Your task to perform on an android device: toggle pop-ups in chrome Image 0: 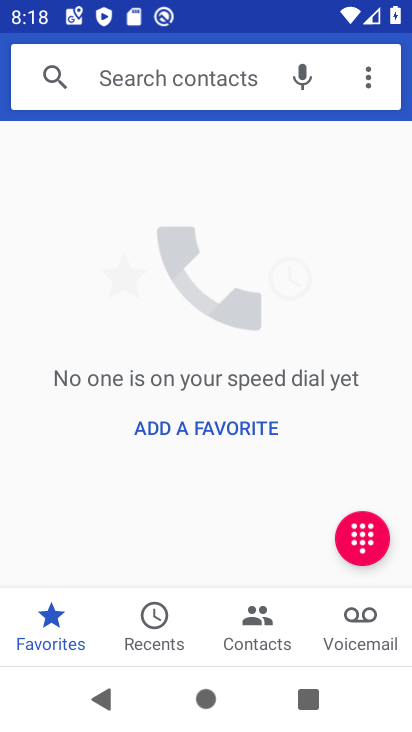
Step 0: press home button
Your task to perform on an android device: toggle pop-ups in chrome Image 1: 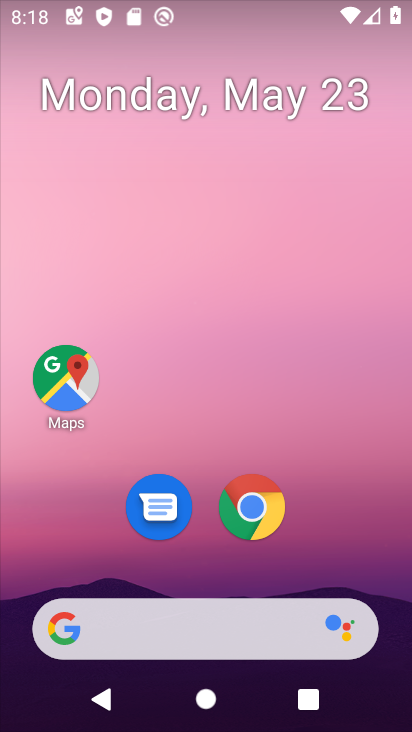
Step 1: drag from (353, 486) to (343, 95)
Your task to perform on an android device: toggle pop-ups in chrome Image 2: 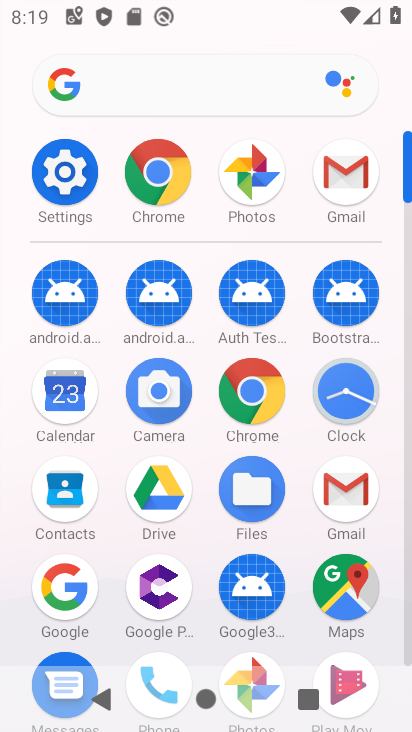
Step 2: click (267, 402)
Your task to perform on an android device: toggle pop-ups in chrome Image 3: 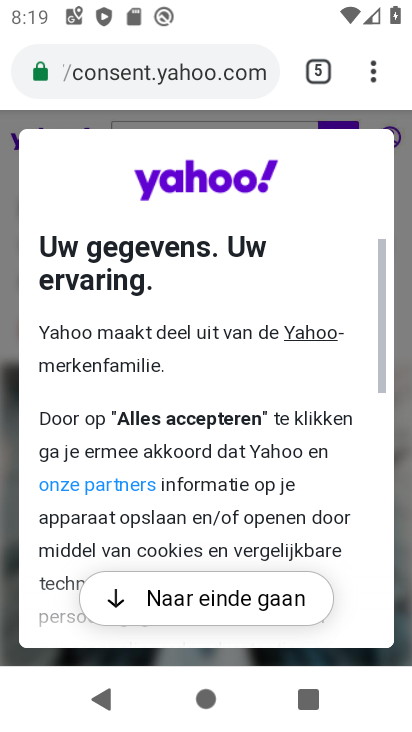
Step 3: drag from (371, 79) to (247, 507)
Your task to perform on an android device: toggle pop-ups in chrome Image 4: 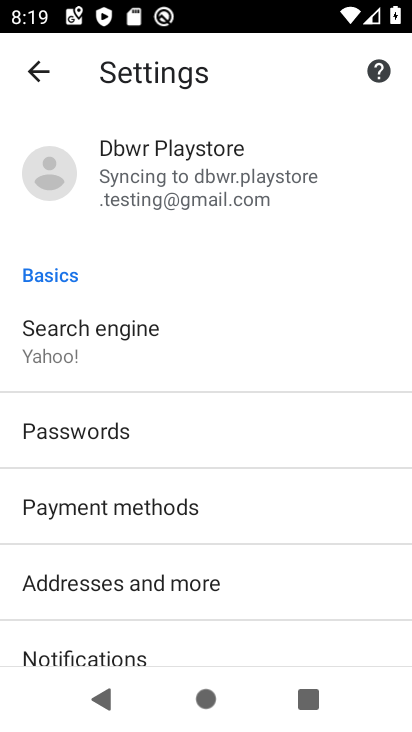
Step 4: drag from (244, 591) to (255, 299)
Your task to perform on an android device: toggle pop-ups in chrome Image 5: 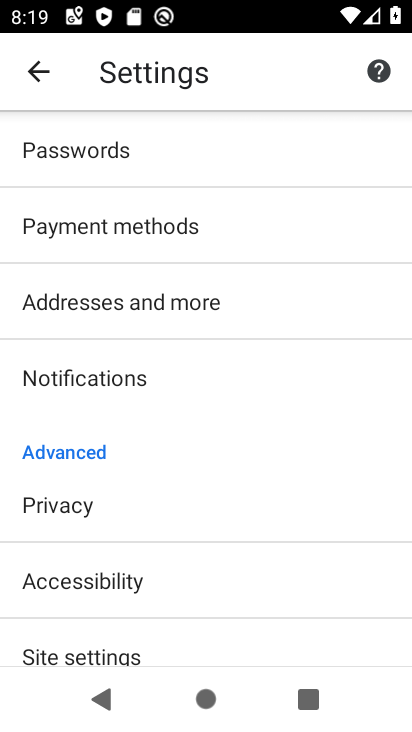
Step 5: drag from (208, 586) to (228, 363)
Your task to perform on an android device: toggle pop-ups in chrome Image 6: 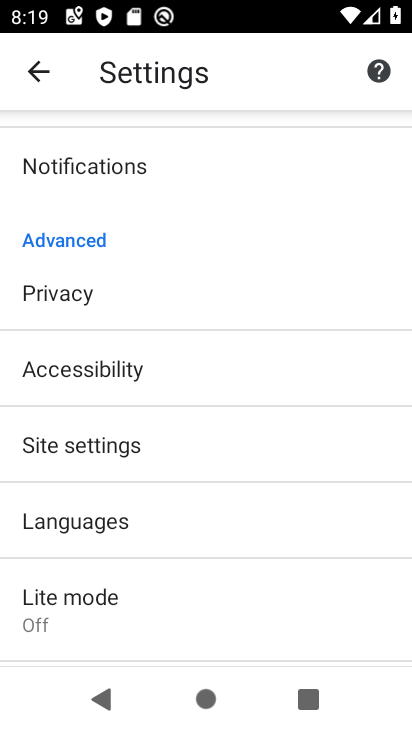
Step 6: click (173, 442)
Your task to perform on an android device: toggle pop-ups in chrome Image 7: 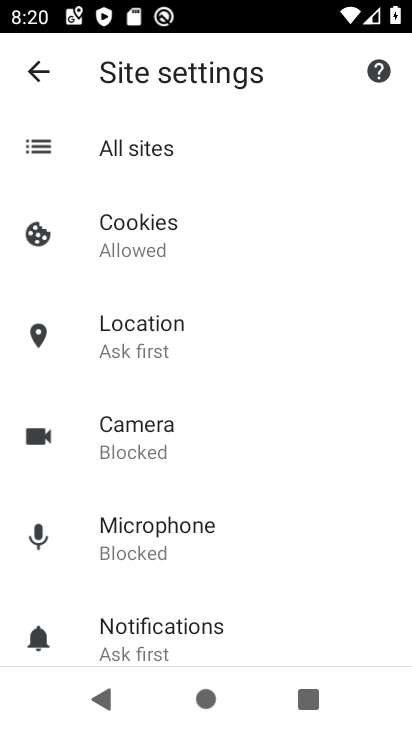
Step 7: drag from (245, 613) to (252, 206)
Your task to perform on an android device: toggle pop-ups in chrome Image 8: 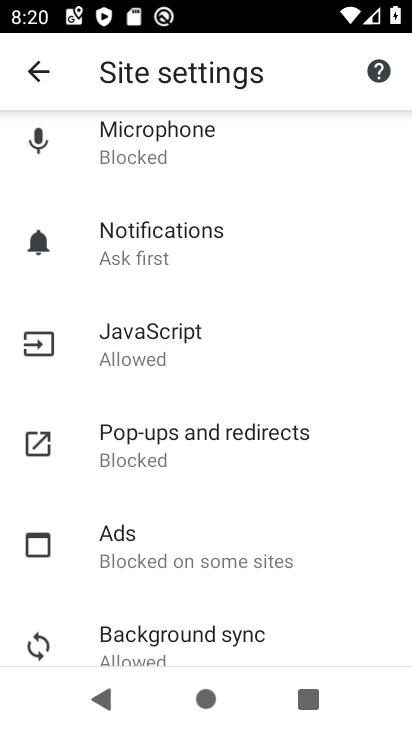
Step 8: click (240, 447)
Your task to perform on an android device: toggle pop-ups in chrome Image 9: 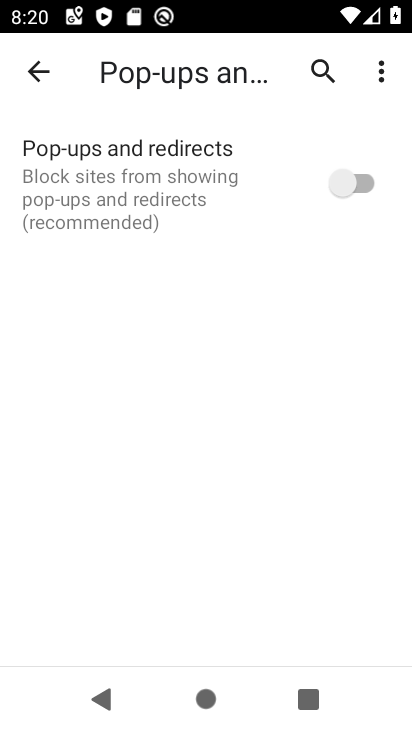
Step 9: click (366, 186)
Your task to perform on an android device: toggle pop-ups in chrome Image 10: 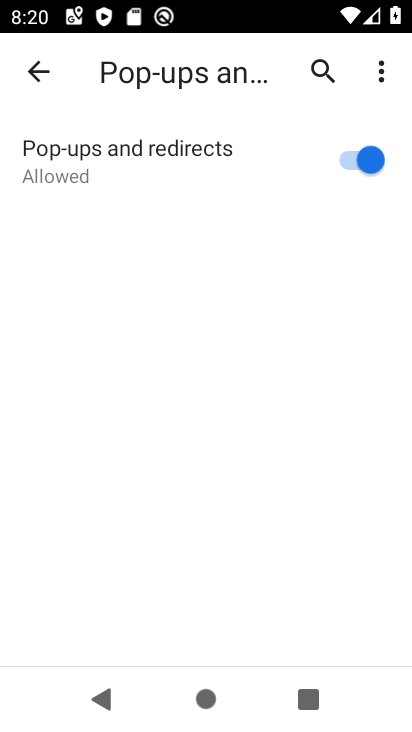
Step 10: task complete